Your task to perform on an android device: choose inbox layout in the gmail app Image 0: 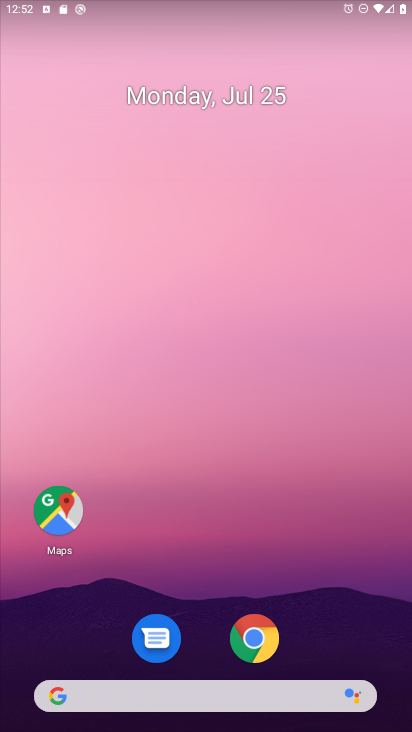
Step 0: drag from (212, 639) to (202, 166)
Your task to perform on an android device: choose inbox layout in the gmail app Image 1: 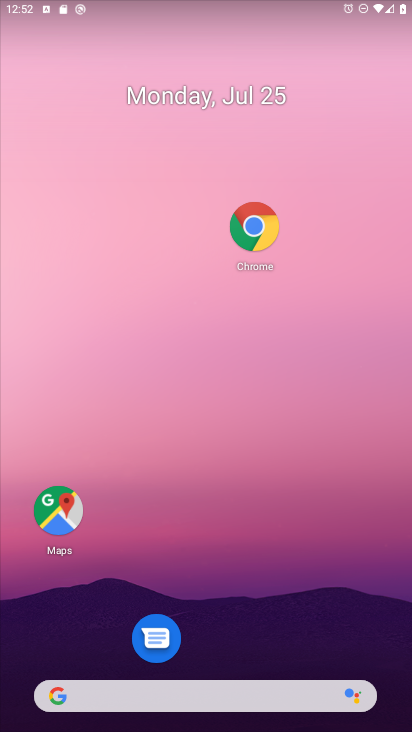
Step 1: drag from (208, 659) to (168, 43)
Your task to perform on an android device: choose inbox layout in the gmail app Image 2: 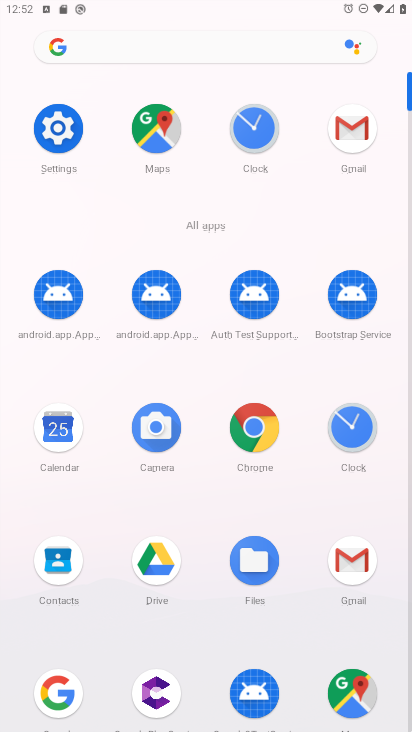
Step 2: click (351, 125)
Your task to perform on an android device: choose inbox layout in the gmail app Image 3: 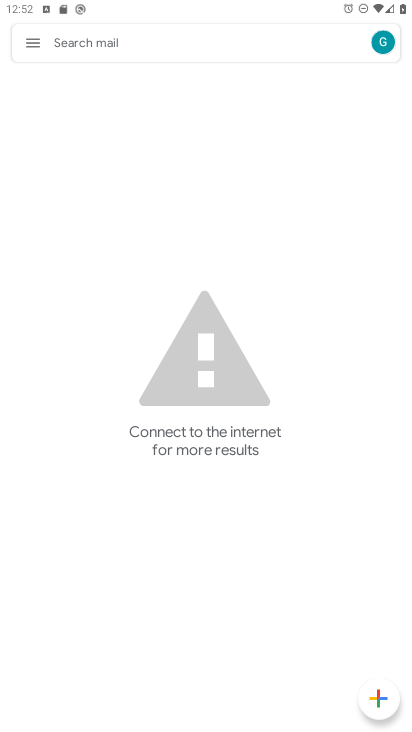
Step 3: click (14, 42)
Your task to perform on an android device: choose inbox layout in the gmail app Image 4: 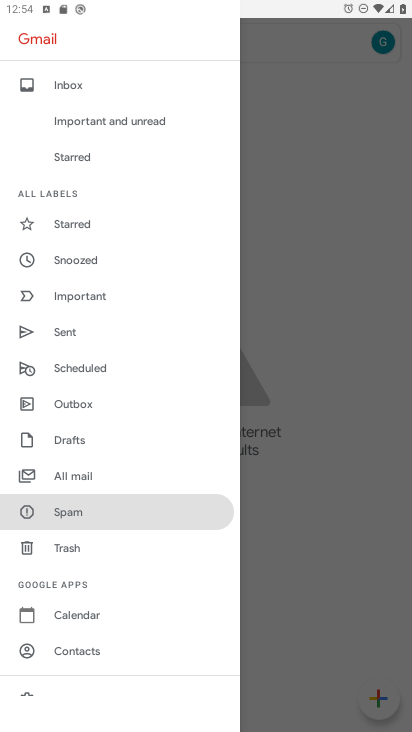
Step 4: drag from (81, 627) to (124, 163)
Your task to perform on an android device: choose inbox layout in the gmail app Image 5: 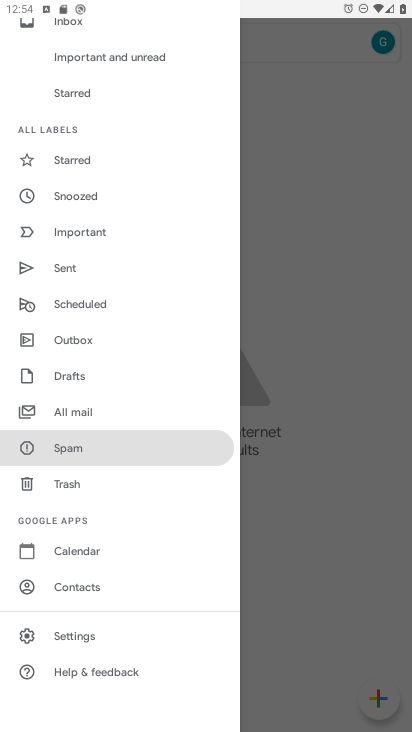
Step 5: click (76, 612)
Your task to perform on an android device: choose inbox layout in the gmail app Image 6: 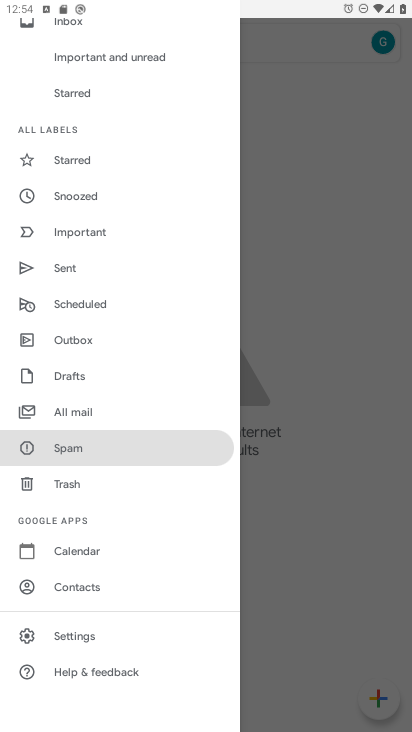
Step 6: click (89, 639)
Your task to perform on an android device: choose inbox layout in the gmail app Image 7: 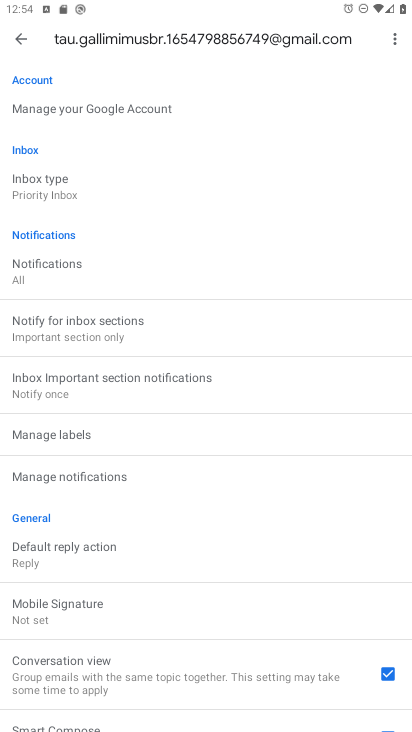
Step 7: click (190, 199)
Your task to perform on an android device: choose inbox layout in the gmail app Image 8: 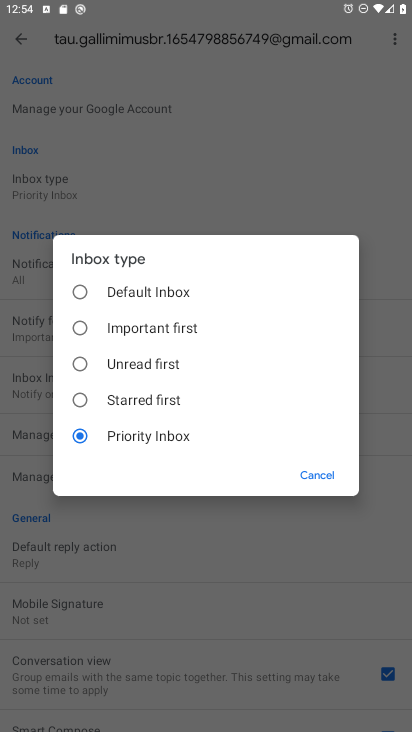
Step 8: click (266, 328)
Your task to perform on an android device: choose inbox layout in the gmail app Image 9: 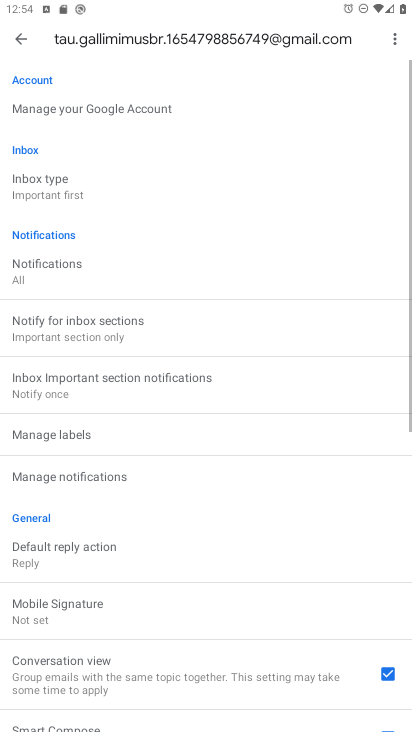
Step 9: task complete